Your task to perform on an android device: Show me popular games on the Play Store Image 0: 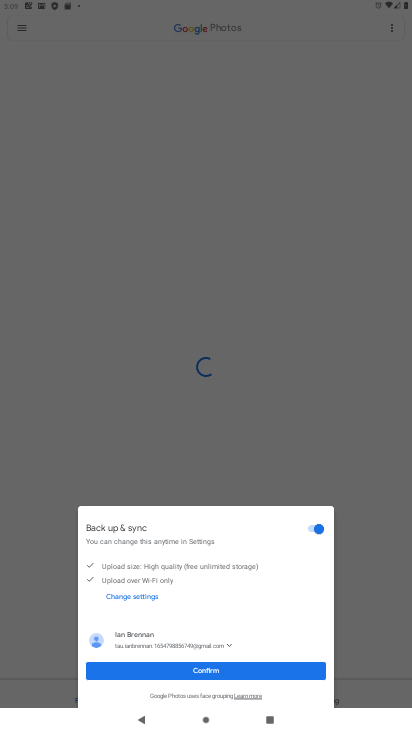
Step 0: press home button
Your task to perform on an android device: Show me popular games on the Play Store Image 1: 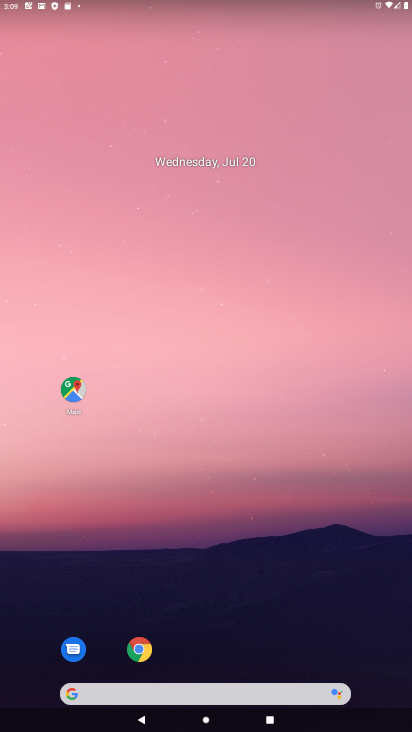
Step 1: drag from (200, 691) to (409, 377)
Your task to perform on an android device: Show me popular games on the Play Store Image 2: 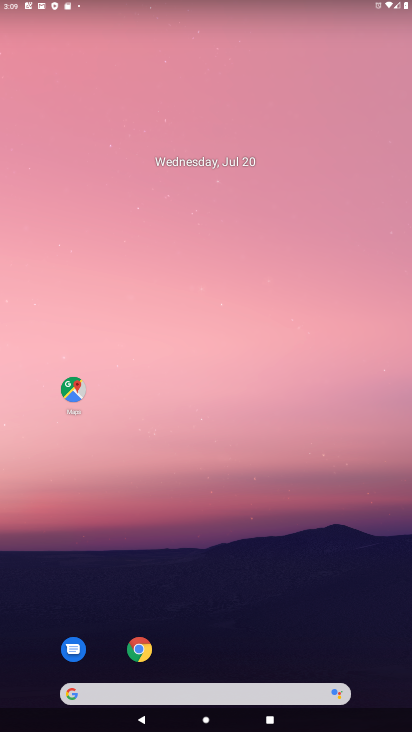
Step 2: drag from (221, 691) to (204, 4)
Your task to perform on an android device: Show me popular games on the Play Store Image 3: 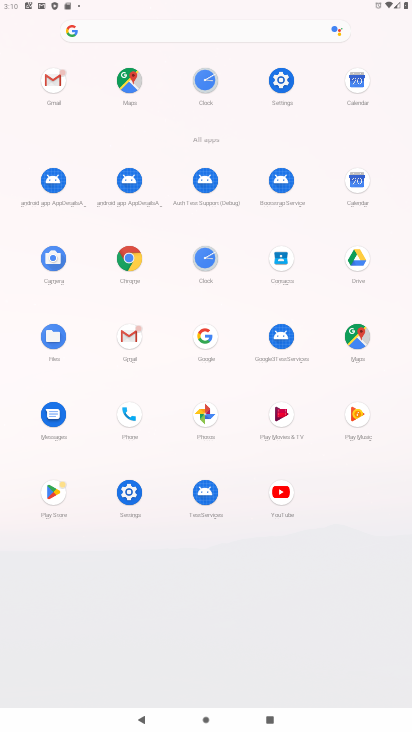
Step 3: click (54, 492)
Your task to perform on an android device: Show me popular games on the Play Store Image 4: 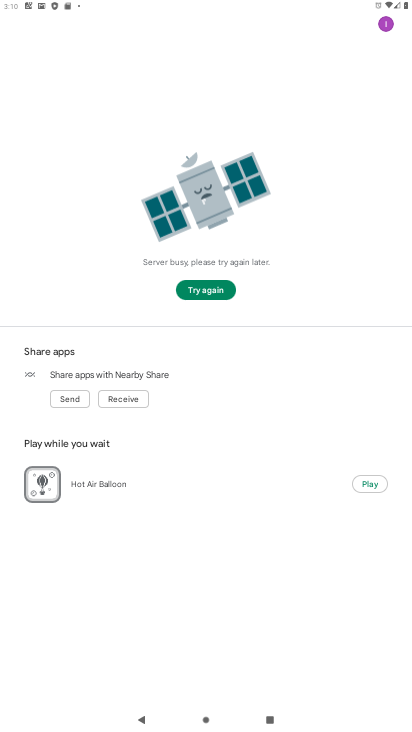
Step 4: click (212, 293)
Your task to perform on an android device: Show me popular games on the Play Store Image 5: 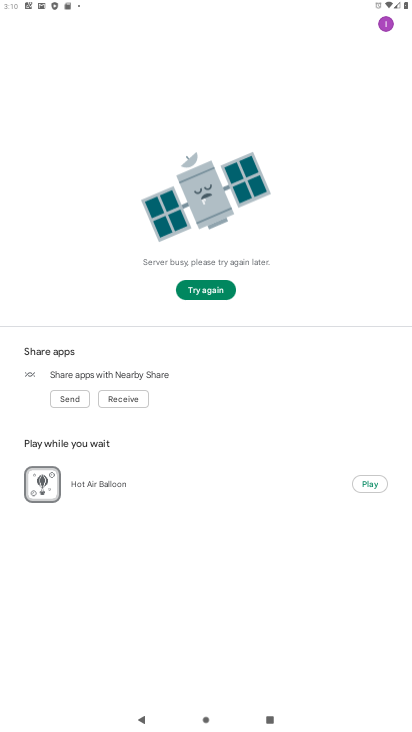
Step 5: task complete